Your task to perform on an android device: Open calendar and show me the third week of next month Image 0: 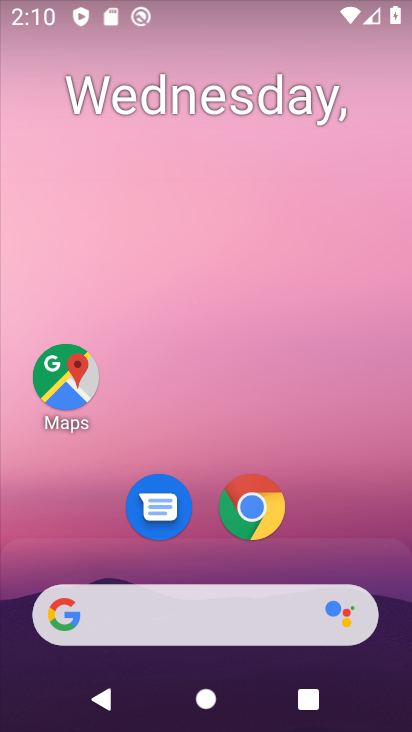
Step 0: click (249, 503)
Your task to perform on an android device: Open calendar and show me the third week of next month Image 1: 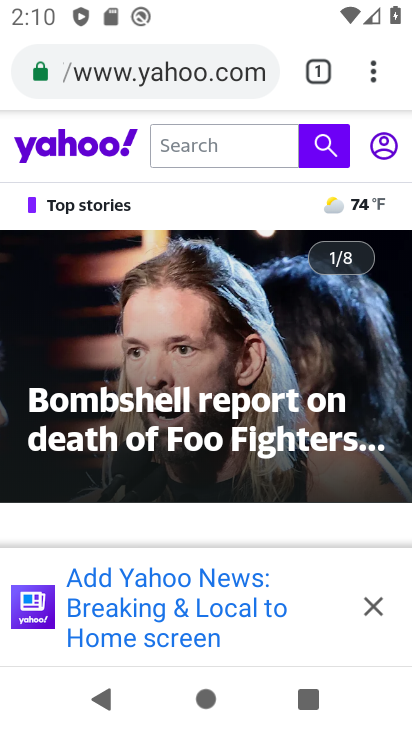
Step 1: press home button
Your task to perform on an android device: Open calendar and show me the third week of next month Image 2: 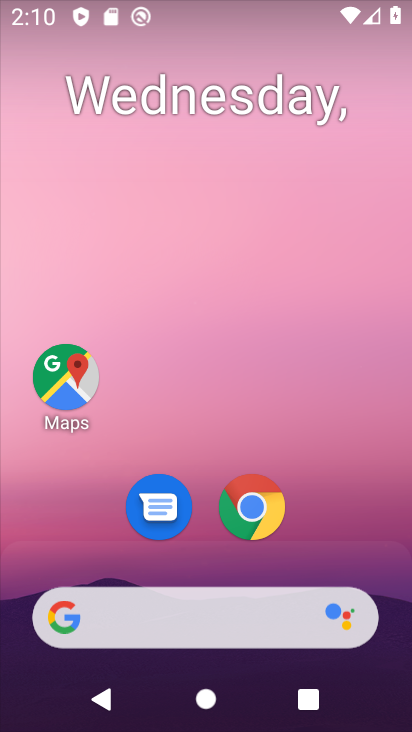
Step 2: drag from (333, 536) to (261, 119)
Your task to perform on an android device: Open calendar and show me the third week of next month Image 3: 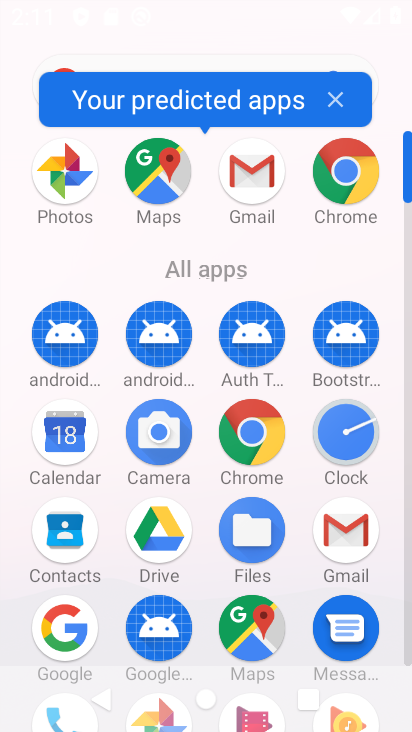
Step 3: click (66, 434)
Your task to perform on an android device: Open calendar and show me the third week of next month Image 4: 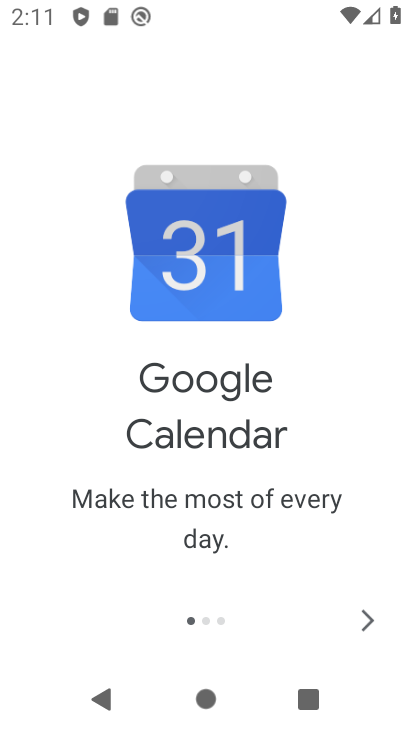
Step 4: click (359, 614)
Your task to perform on an android device: Open calendar and show me the third week of next month Image 5: 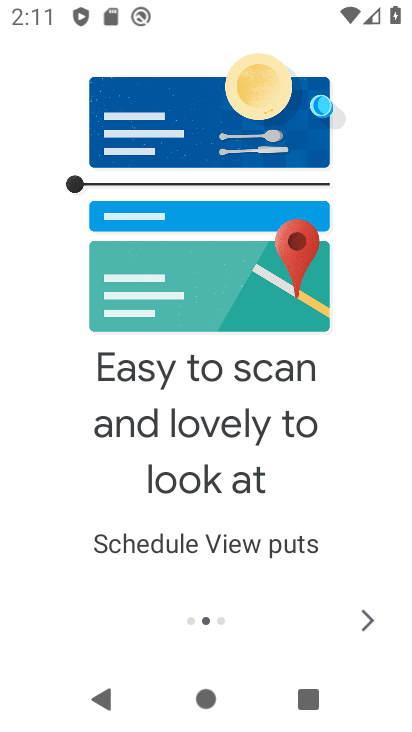
Step 5: click (362, 611)
Your task to perform on an android device: Open calendar and show me the third week of next month Image 6: 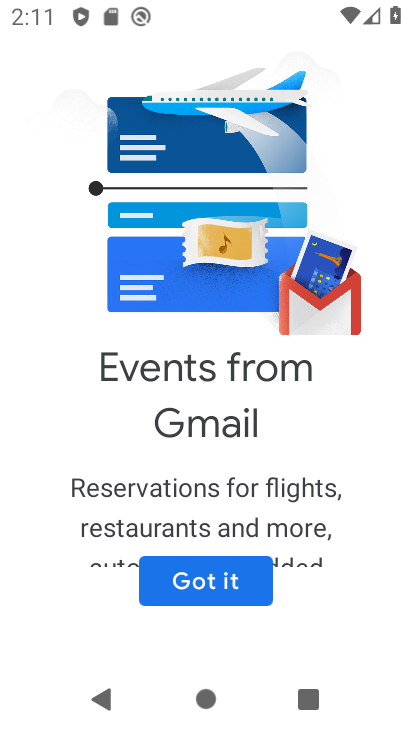
Step 6: click (186, 574)
Your task to perform on an android device: Open calendar and show me the third week of next month Image 7: 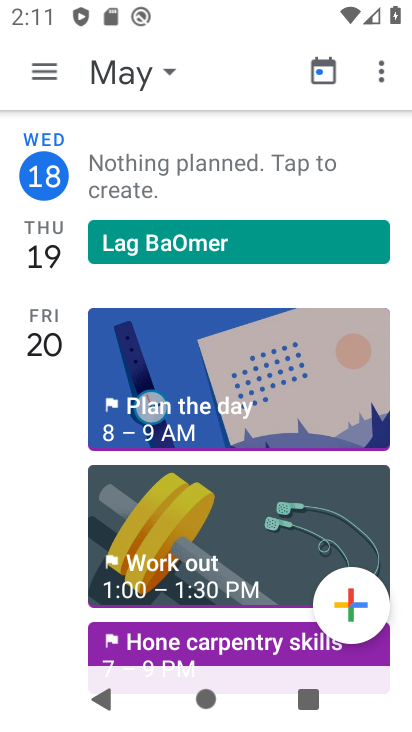
Step 7: click (141, 69)
Your task to perform on an android device: Open calendar and show me the third week of next month Image 8: 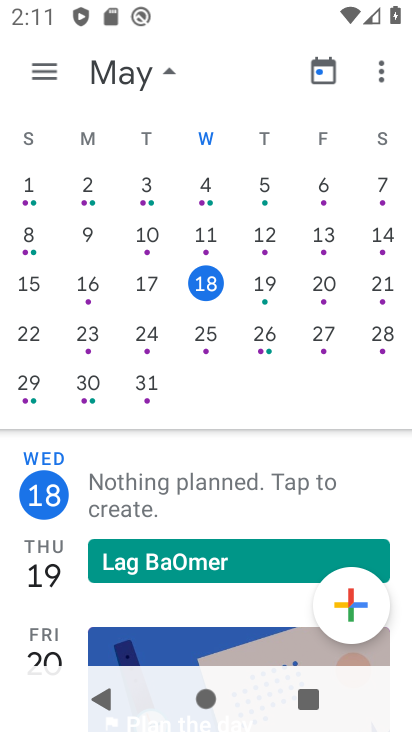
Step 8: task complete